Your task to perform on an android device: Go to Amazon Image 0: 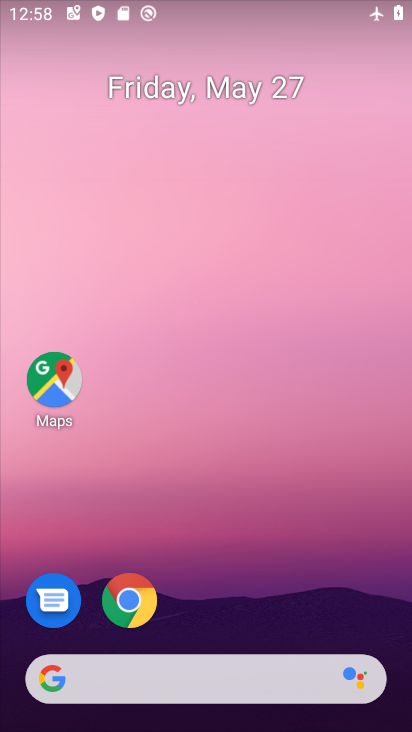
Step 0: click (127, 586)
Your task to perform on an android device: Go to Amazon Image 1: 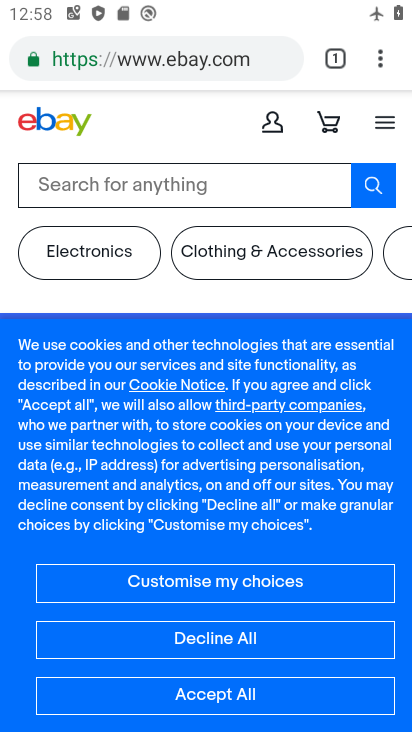
Step 1: click (345, 58)
Your task to perform on an android device: Go to Amazon Image 2: 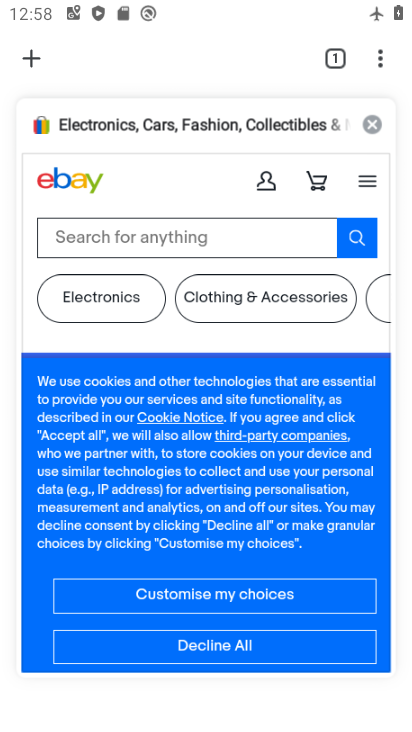
Step 2: click (6, 39)
Your task to perform on an android device: Go to Amazon Image 3: 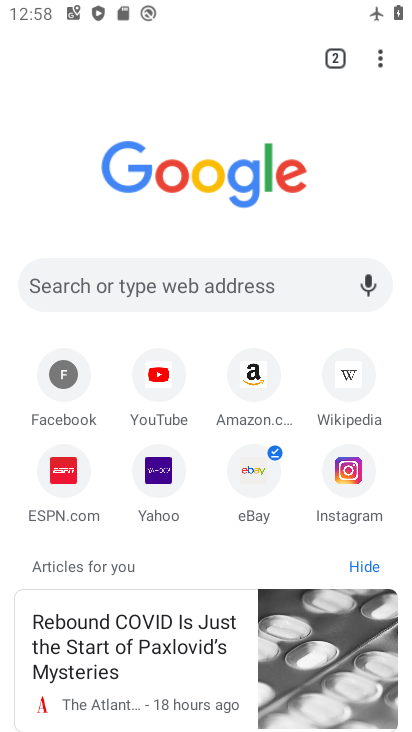
Step 3: click (24, 51)
Your task to perform on an android device: Go to Amazon Image 4: 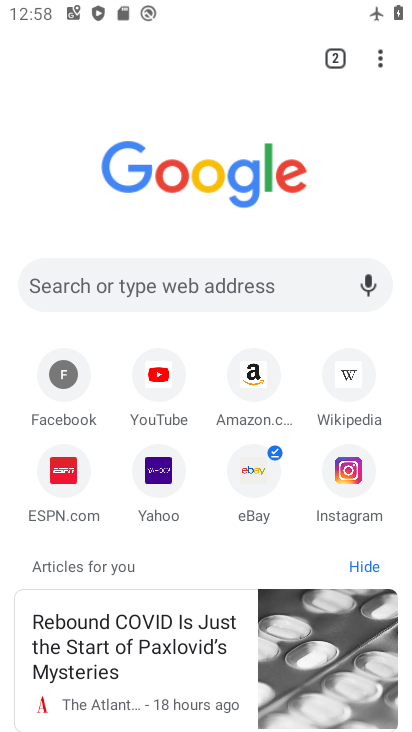
Step 4: click (248, 380)
Your task to perform on an android device: Go to Amazon Image 5: 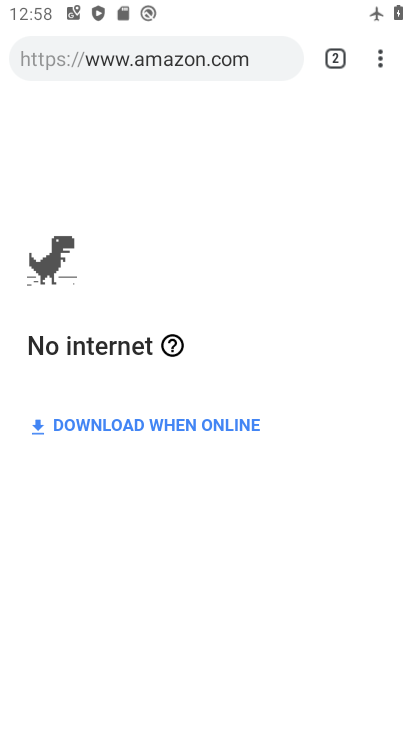
Step 5: drag from (331, 0) to (287, 526)
Your task to perform on an android device: Go to Amazon Image 6: 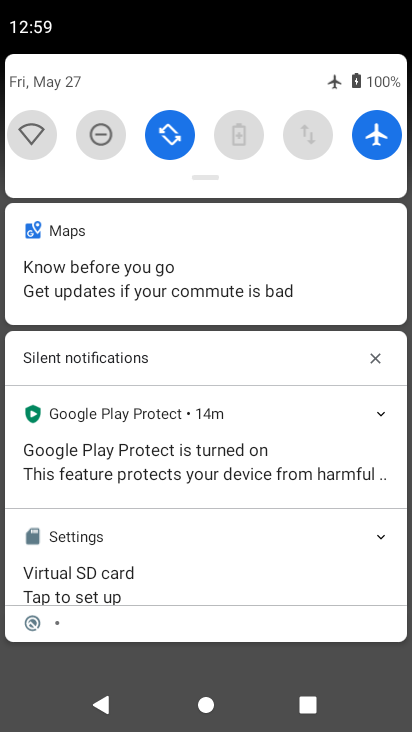
Step 6: click (379, 130)
Your task to perform on an android device: Go to Amazon Image 7: 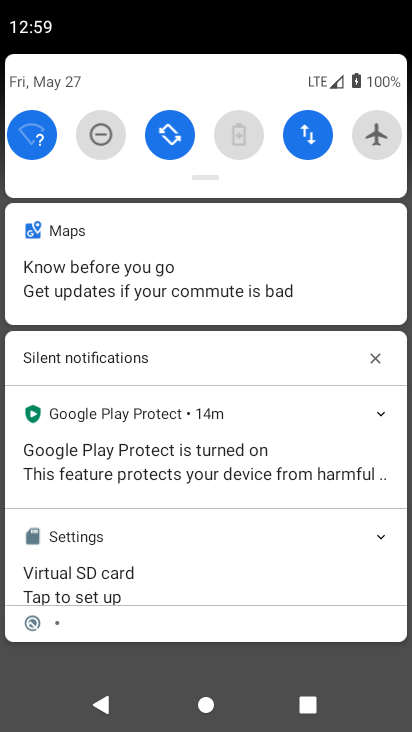
Step 7: task complete